Your task to perform on an android device: turn vacation reply on in the gmail app Image 0: 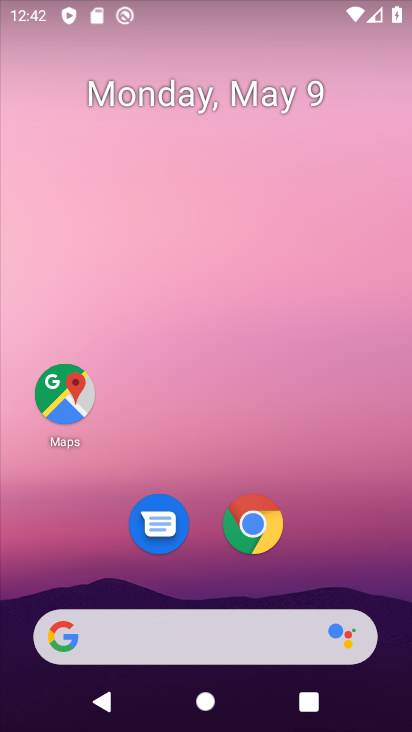
Step 0: drag from (325, 540) to (361, 70)
Your task to perform on an android device: turn vacation reply on in the gmail app Image 1: 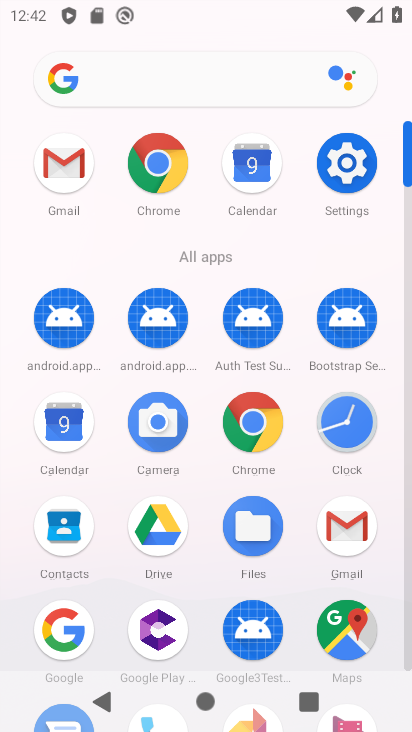
Step 1: click (69, 158)
Your task to perform on an android device: turn vacation reply on in the gmail app Image 2: 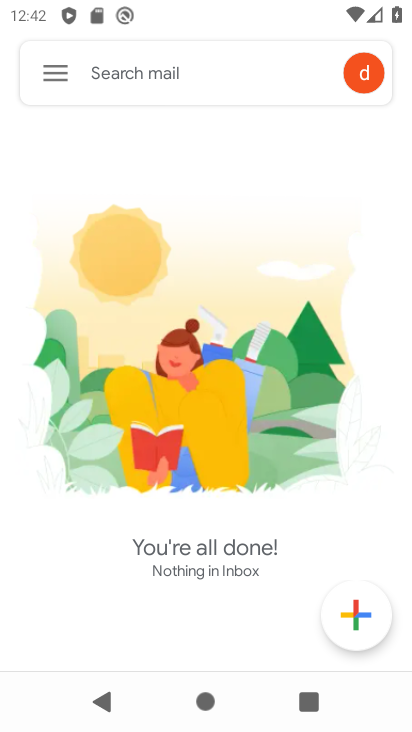
Step 2: click (54, 64)
Your task to perform on an android device: turn vacation reply on in the gmail app Image 3: 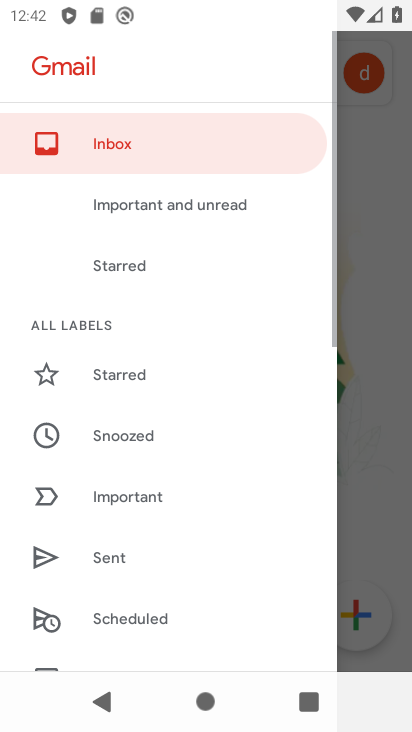
Step 3: drag from (172, 578) to (219, 6)
Your task to perform on an android device: turn vacation reply on in the gmail app Image 4: 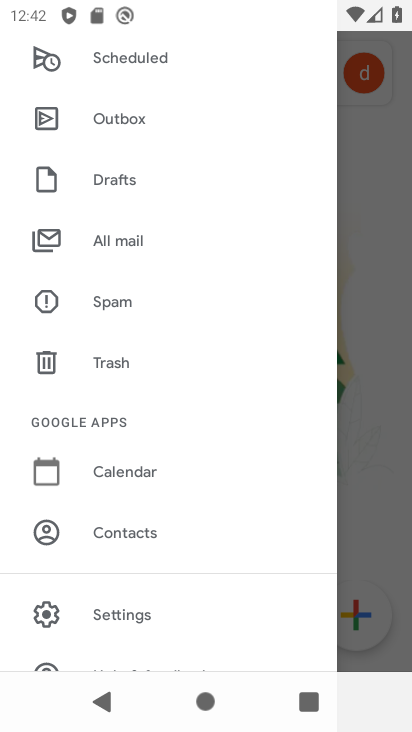
Step 4: click (126, 617)
Your task to perform on an android device: turn vacation reply on in the gmail app Image 5: 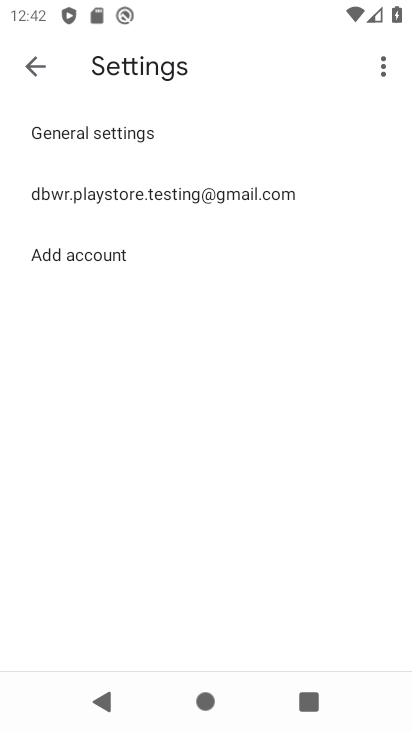
Step 5: click (224, 181)
Your task to perform on an android device: turn vacation reply on in the gmail app Image 6: 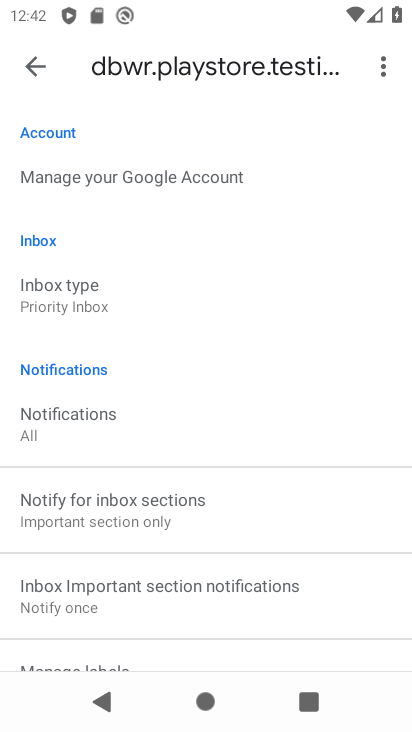
Step 6: drag from (162, 581) to (235, 82)
Your task to perform on an android device: turn vacation reply on in the gmail app Image 7: 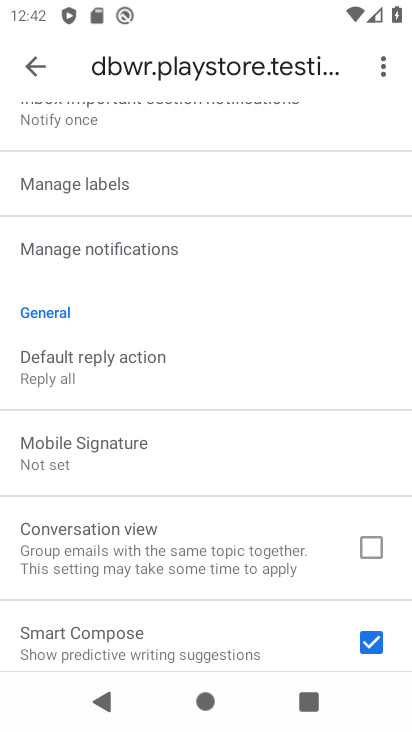
Step 7: drag from (159, 645) to (204, 216)
Your task to perform on an android device: turn vacation reply on in the gmail app Image 8: 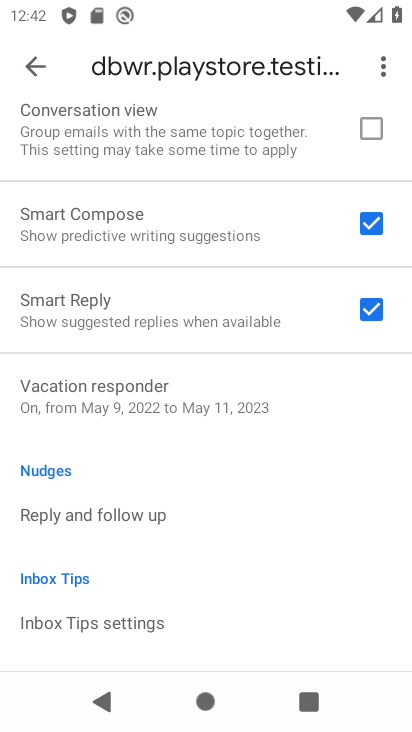
Step 8: click (197, 396)
Your task to perform on an android device: turn vacation reply on in the gmail app Image 9: 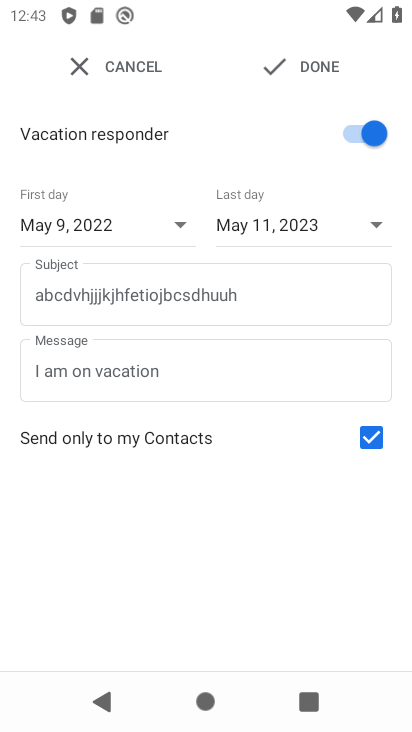
Step 9: task complete